Your task to perform on an android device: Search for "razer huntsman" on target.com, select the first entry, and add it to the cart. Image 0: 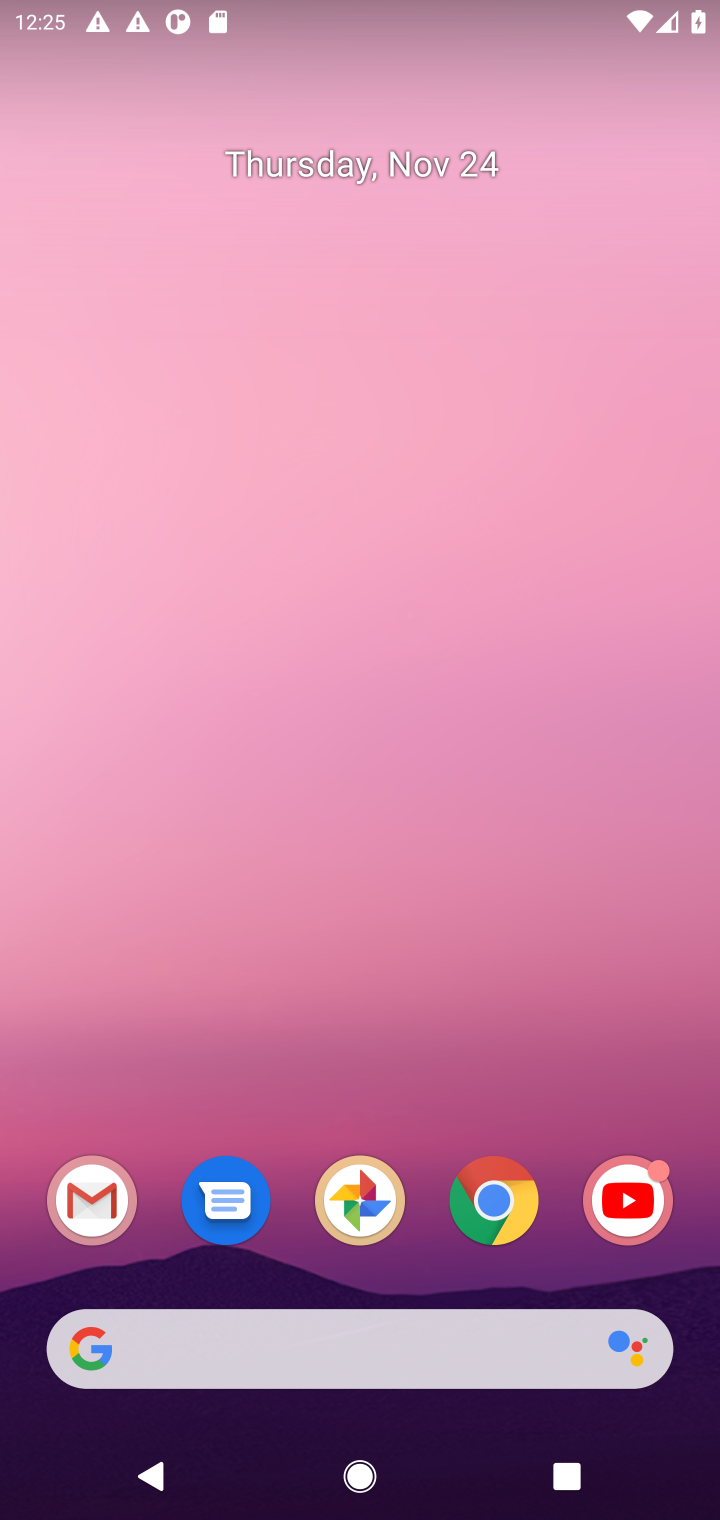
Step 0: click (300, 1324)
Your task to perform on an android device: Search for "razer huntsman" on target.com, select the first entry, and add it to the cart. Image 1: 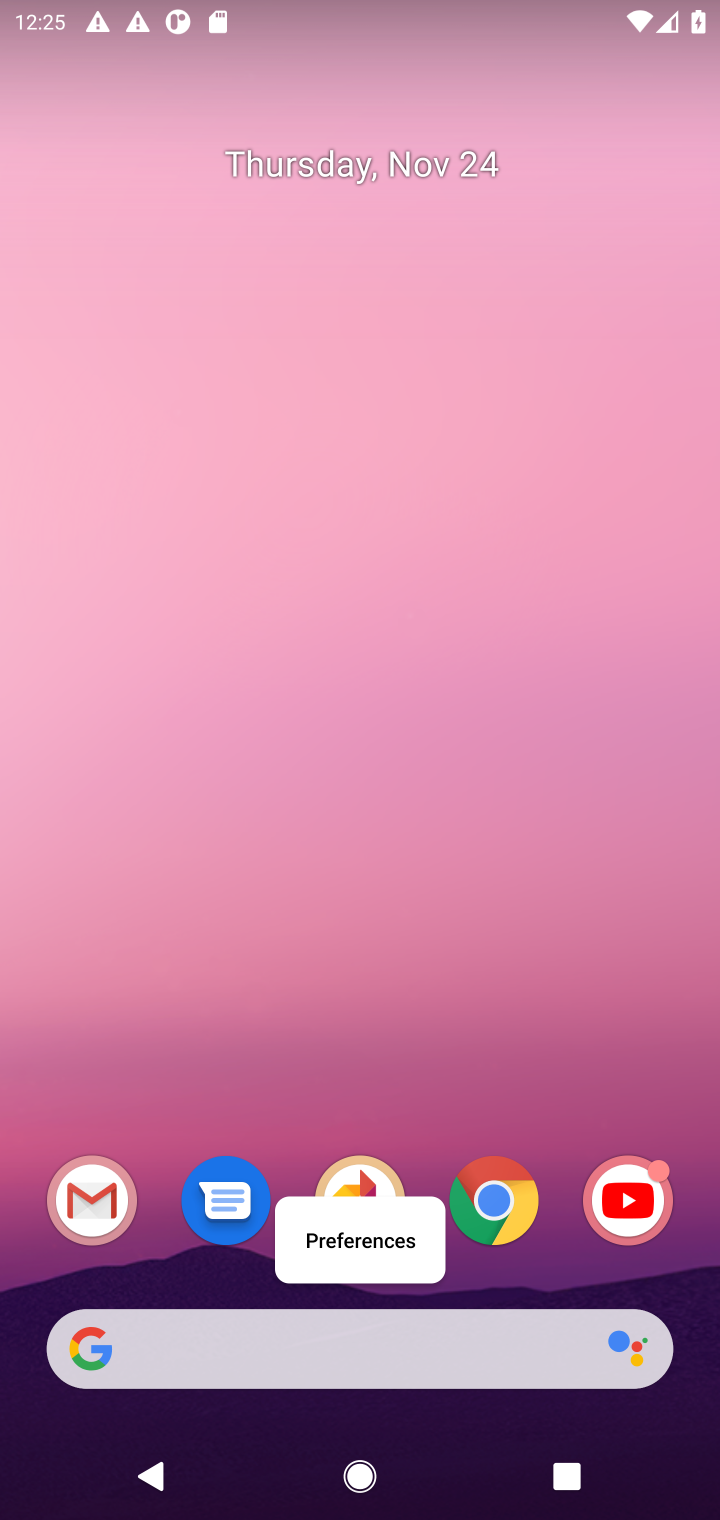
Step 1: click (256, 1339)
Your task to perform on an android device: Search for "razer huntsman" on target.com, select the first entry, and add it to the cart. Image 2: 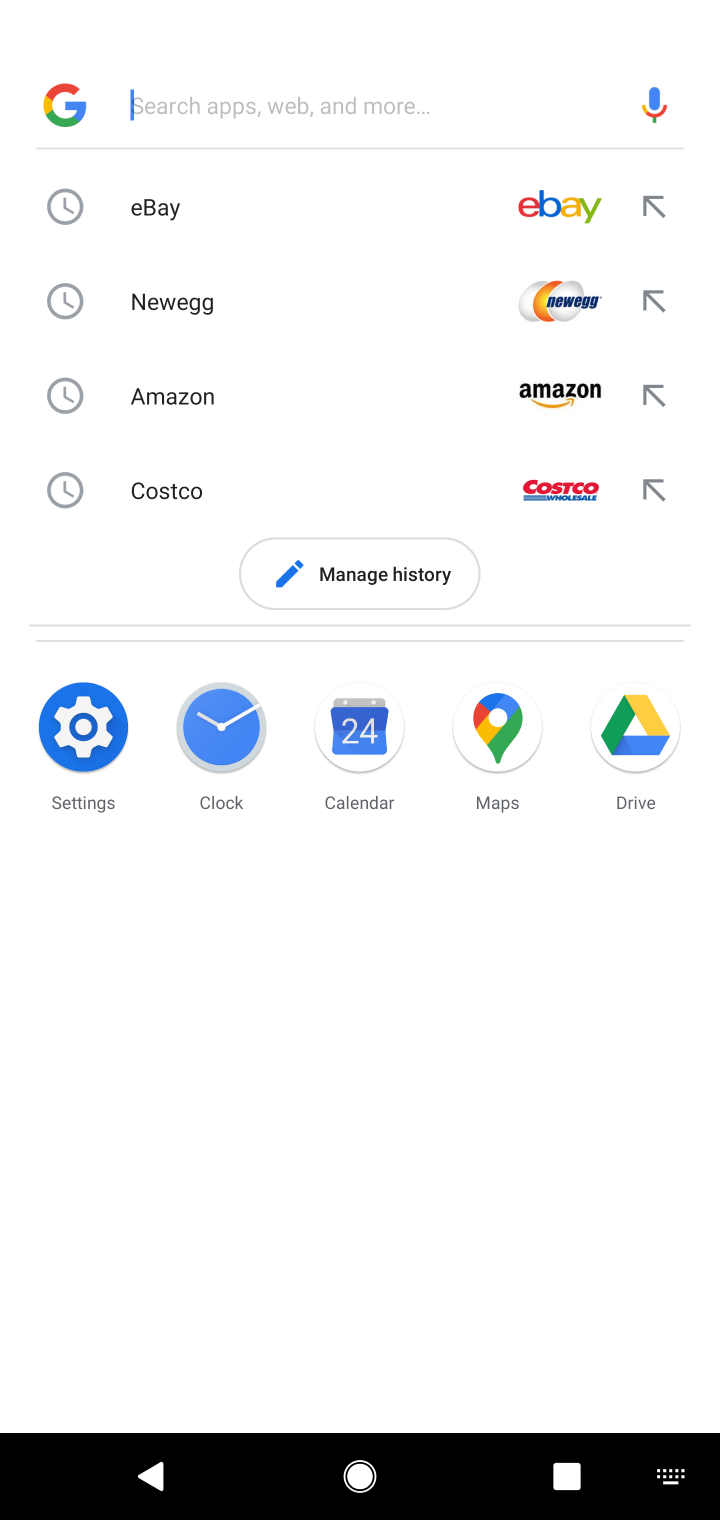
Step 2: type "target"
Your task to perform on an android device: Search for "razer huntsman" on target.com, select the first entry, and add it to the cart. Image 3: 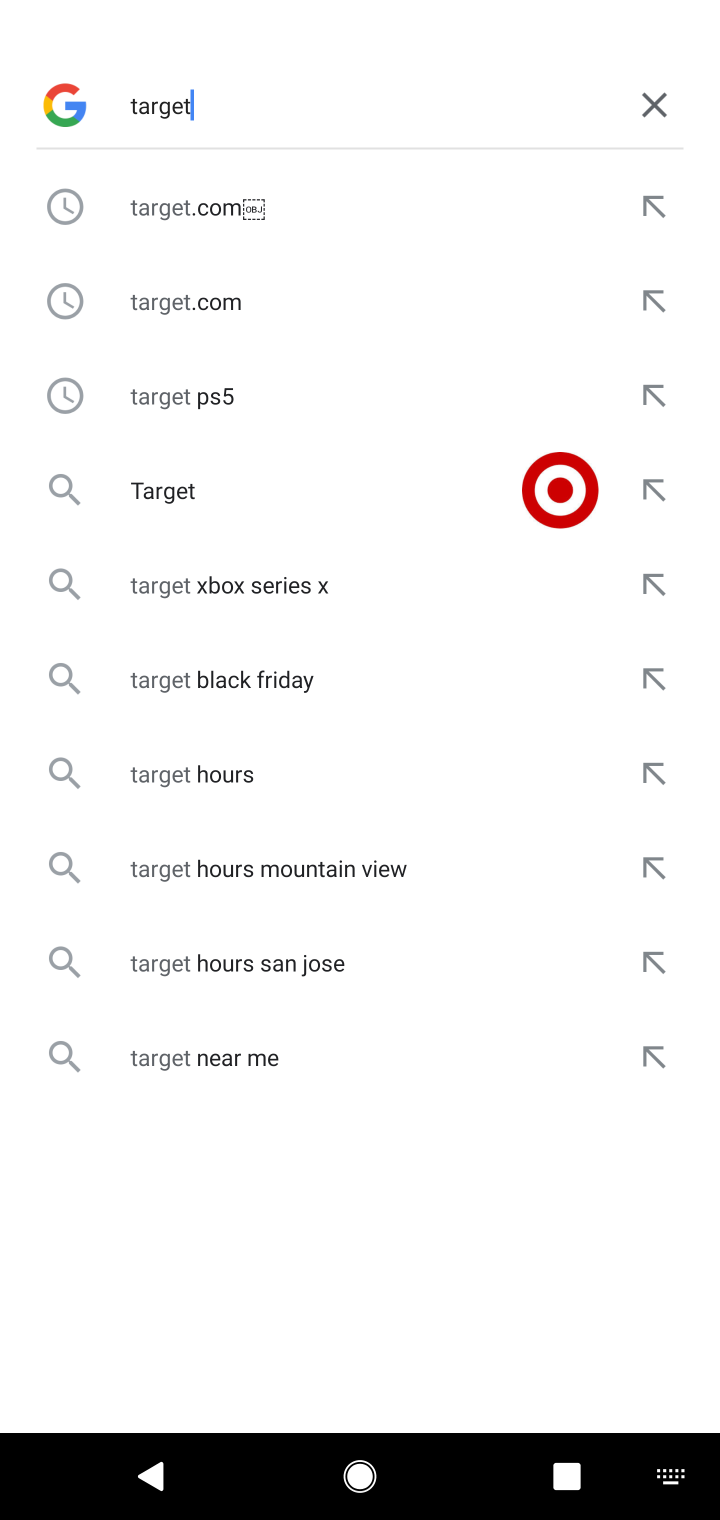
Step 3: click (240, 194)
Your task to perform on an android device: Search for "razer huntsman" on target.com, select the first entry, and add it to the cart. Image 4: 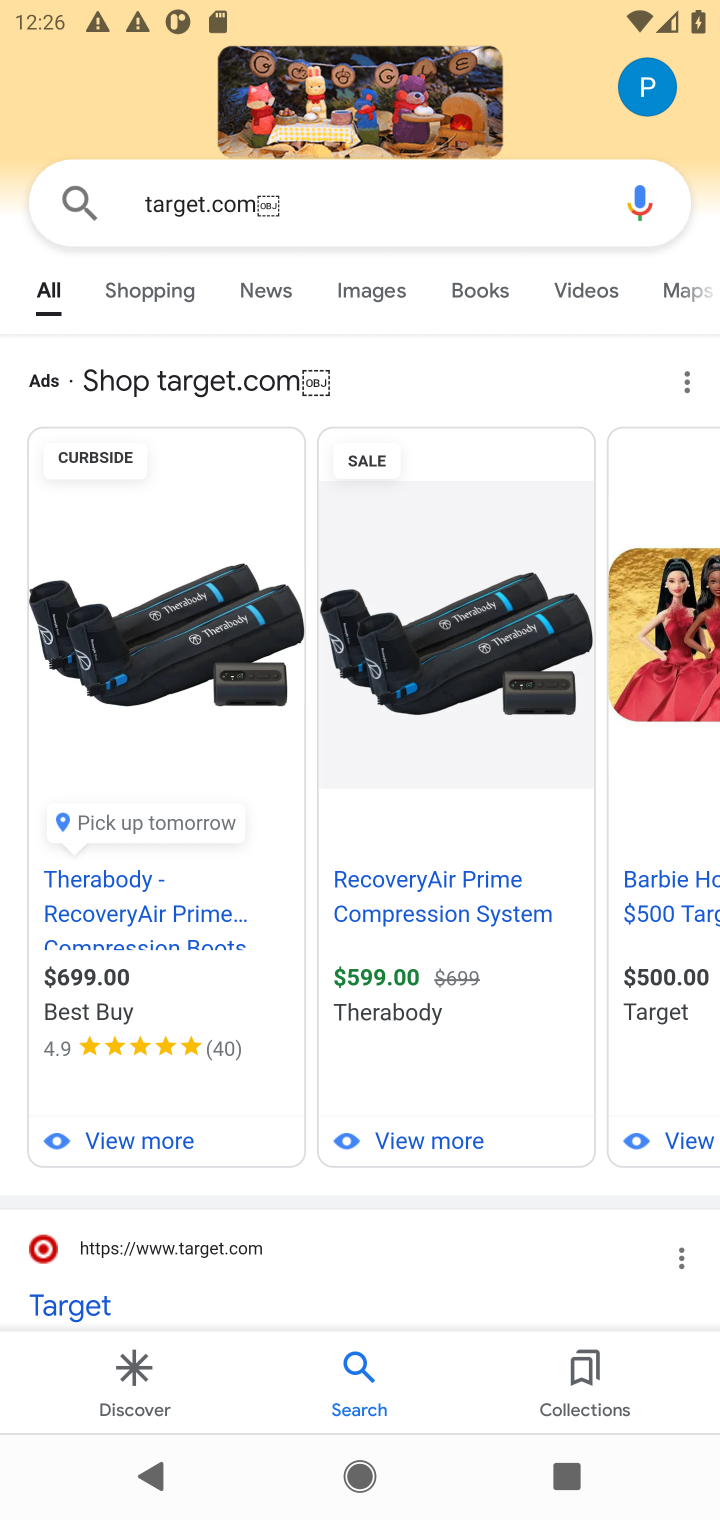
Step 4: click (76, 1297)
Your task to perform on an android device: Search for "razer huntsman" on target.com, select the first entry, and add it to the cart. Image 5: 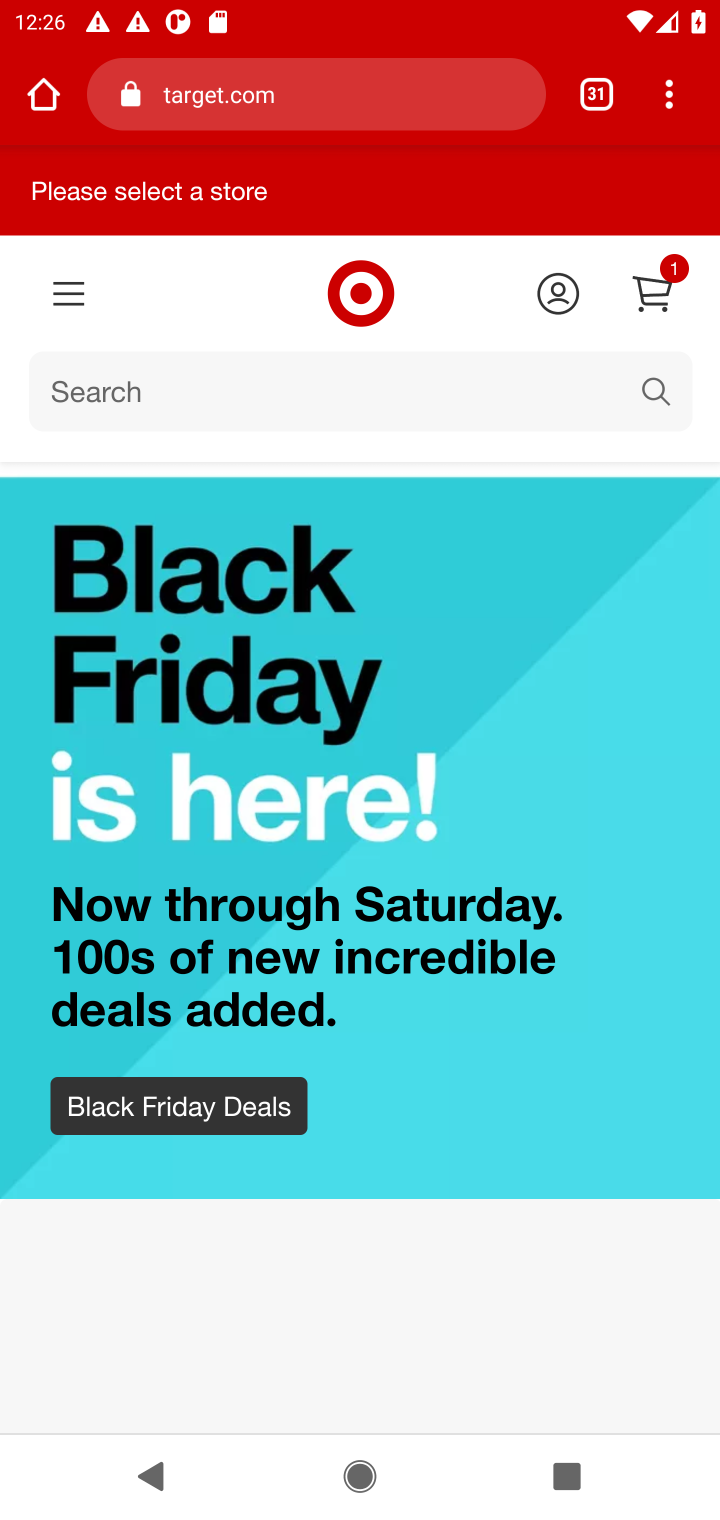
Step 5: click (432, 405)
Your task to perform on an android device: Search for "razer huntsman" on target.com, select the first entry, and add it to the cart. Image 6: 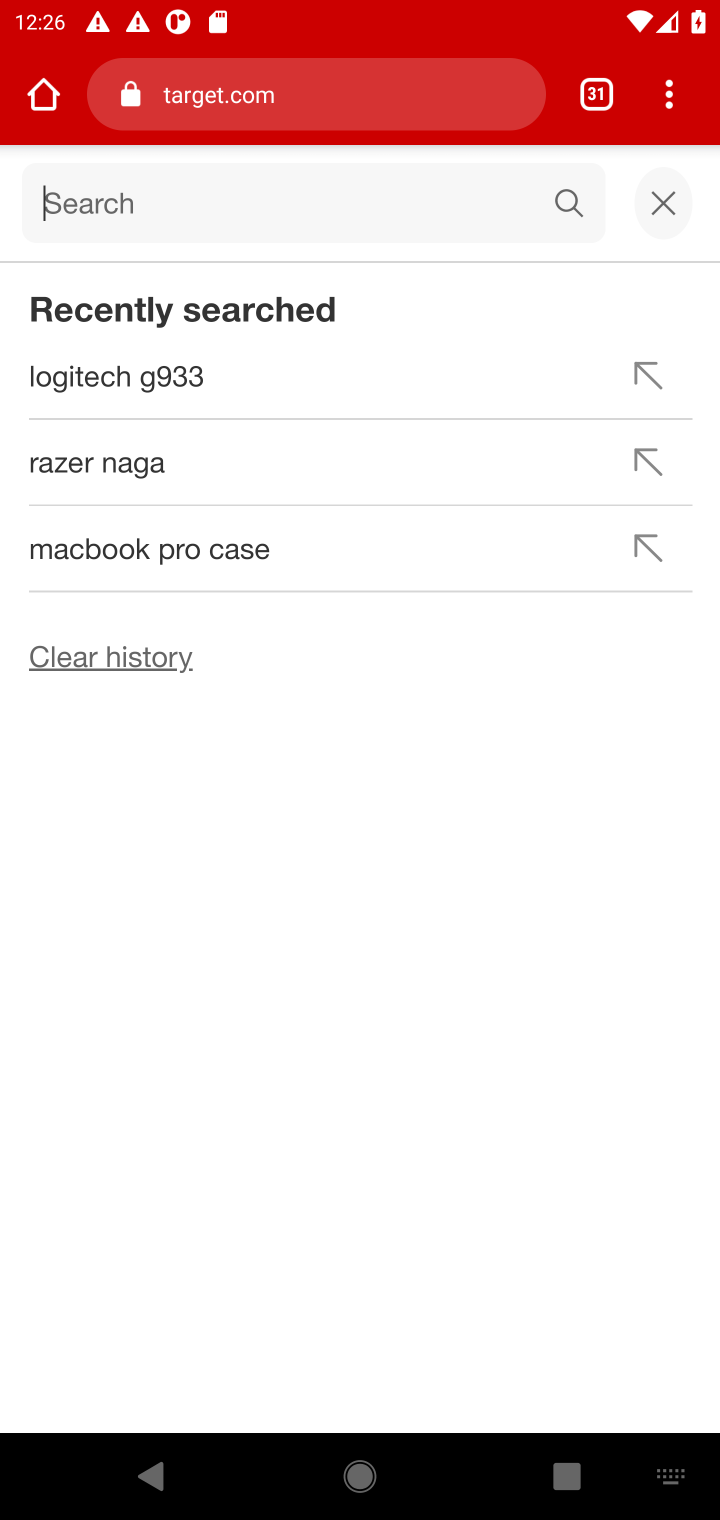
Step 6: type "razer huntsman"
Your task to perform on an android device: Search for "razer huntsman" on target.com, select the first entry, and add it to the cart. Image 7: 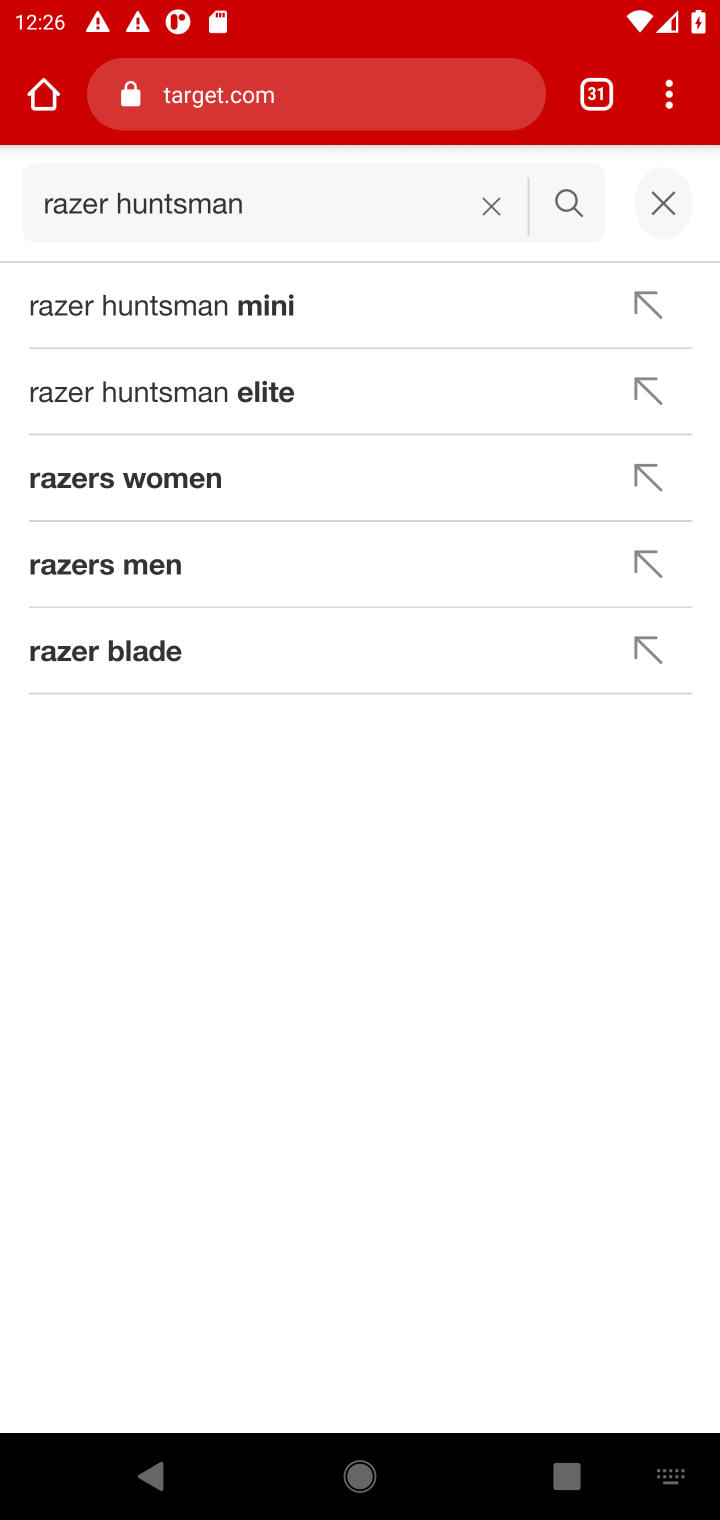
Step 7: click (252, 328)
Your task to perform on an android device: Search for "razer huntsman" on target.com, select the first entry, and add it to the cart. Image 8: 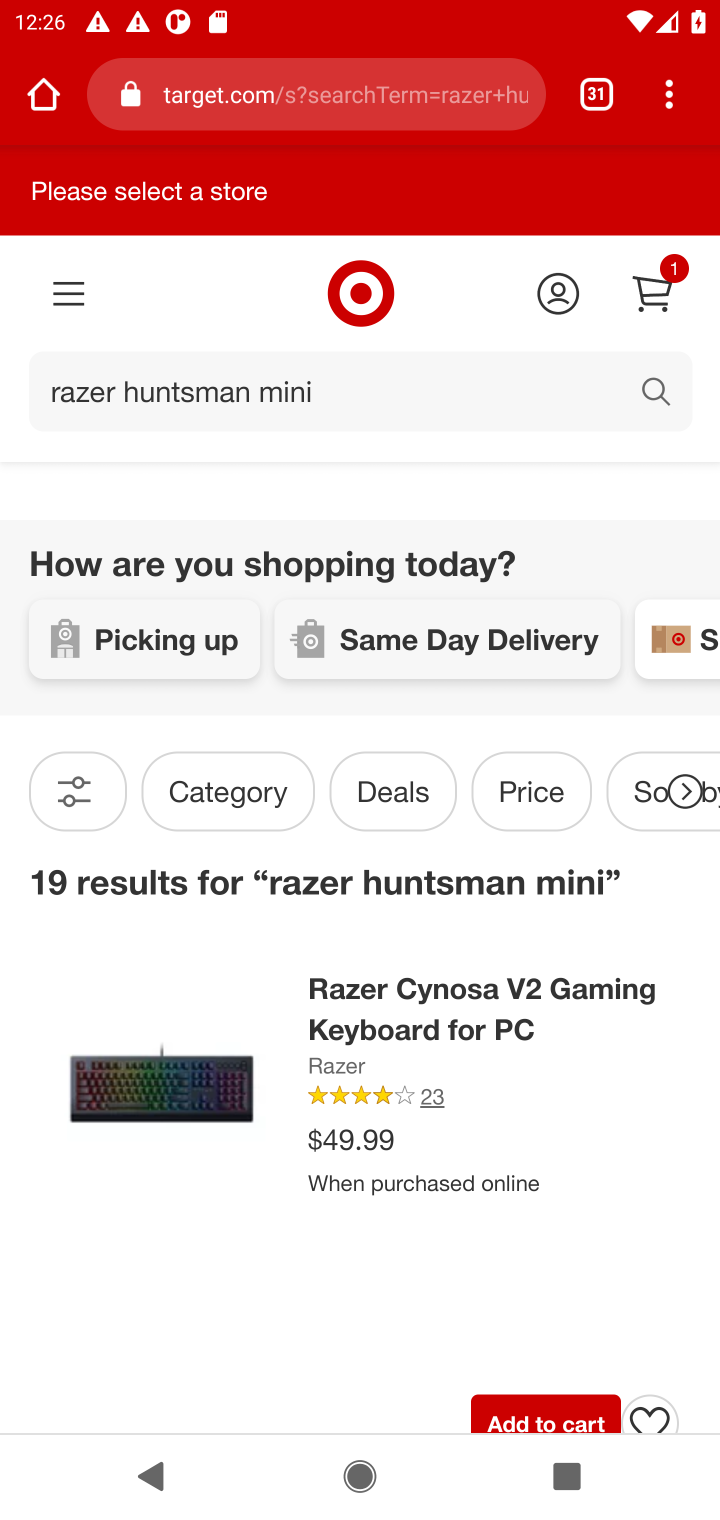
Step 8: click (580, 1405)
Your task to perform on an android device: Search for "razer huntsman" on target.com, select the first entry, and add it to the cart. Image 9: 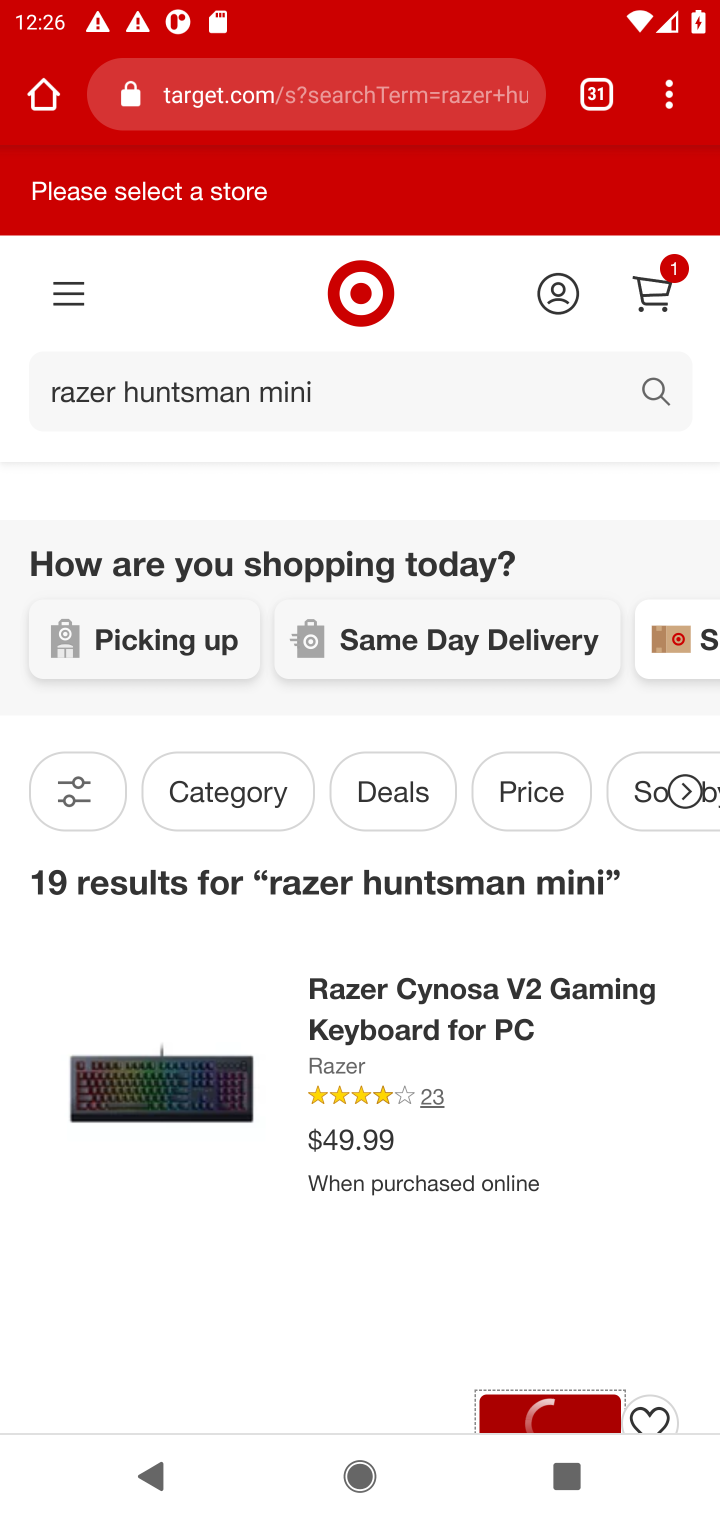
Step 9: task complete